Your task to perform on an android device: Open Amazon Image 0: 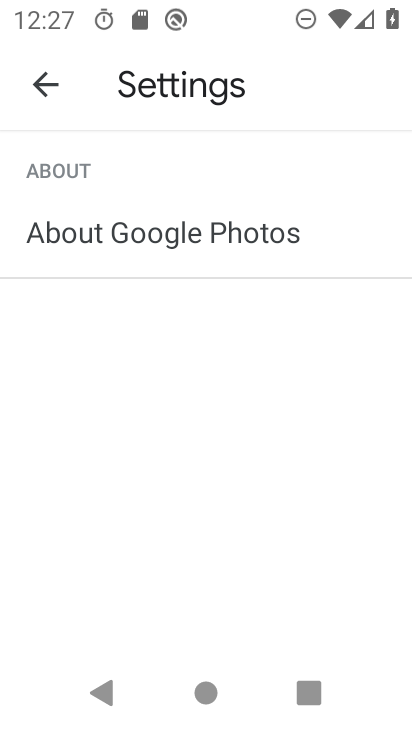
Step 0: press home button
Your task to perform on an android device: Open Amazon Image 1: 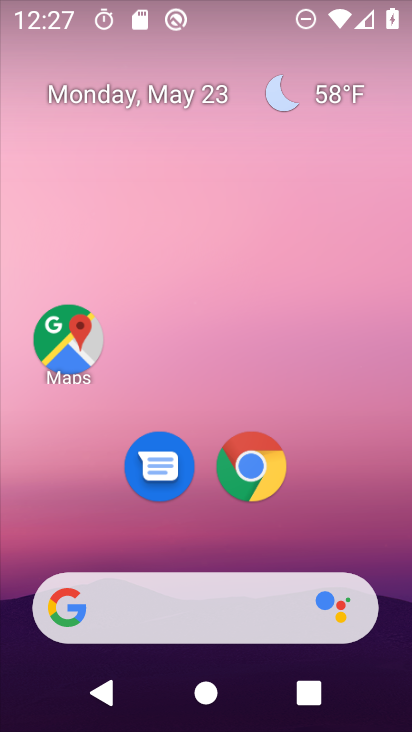
Step 1: click (252, 474)
Your task to perform on an android device: Open Amazon Image 2: 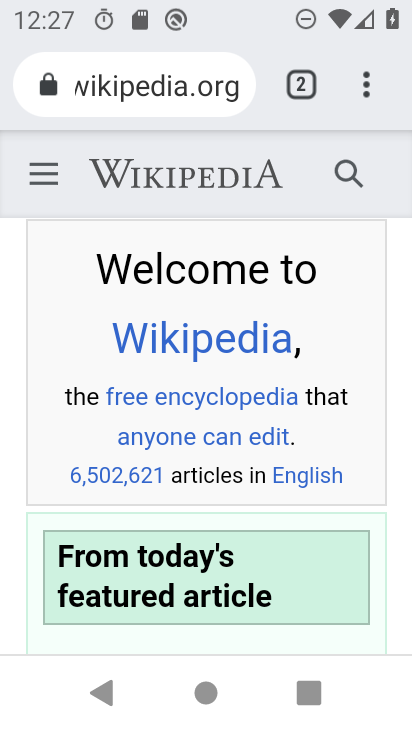
Step 2: press back button
Your task to perform on an android device: Open Amazon Image 3: 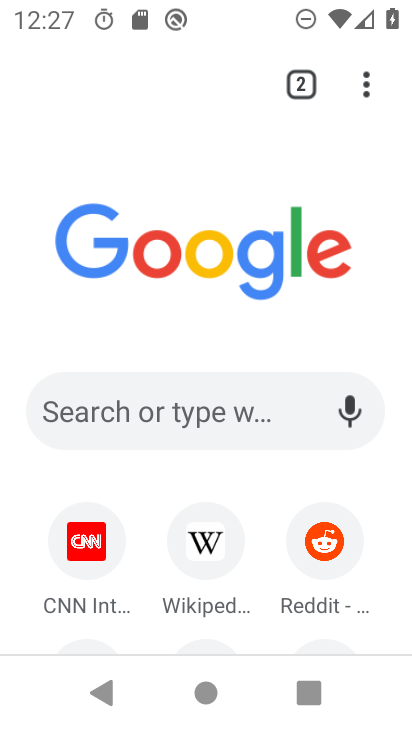
Step 3: drag from (296, 533) to (277, 175)
Your task to perform on an android device: Open Amazon Image 4: 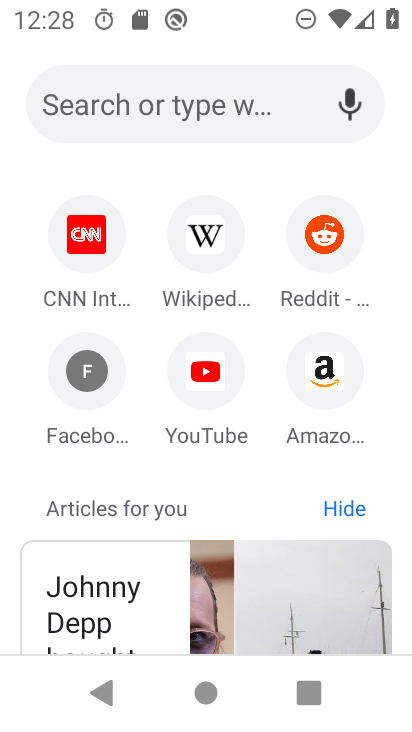
Step 4: click (318, 392)
Your task to perform on an android device: Open Amazon Image 5: 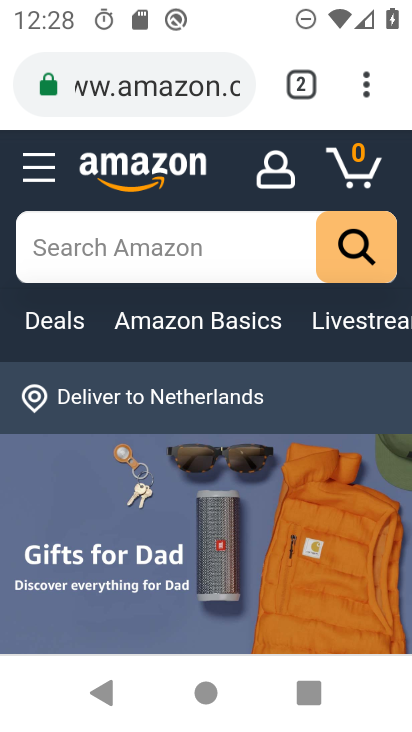
Step 5: task complete